Your task to perform on an android device: refresh tabs in the chrome app Image 0: 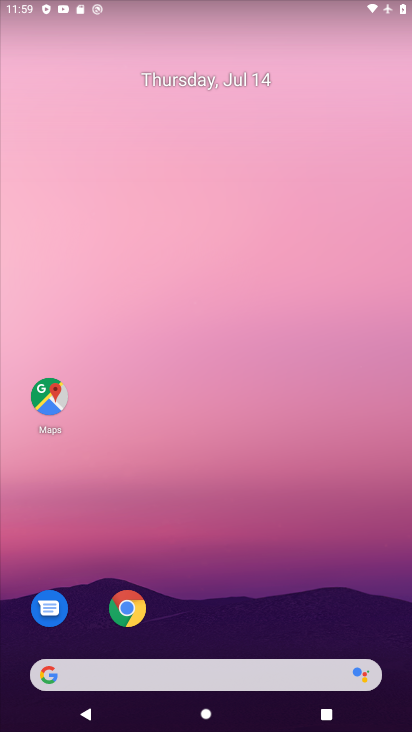
Step 0: drag from (223, 624) to (200, 151)
Your task to perform on an android device: refresh tabs in the chrome app Image 1: 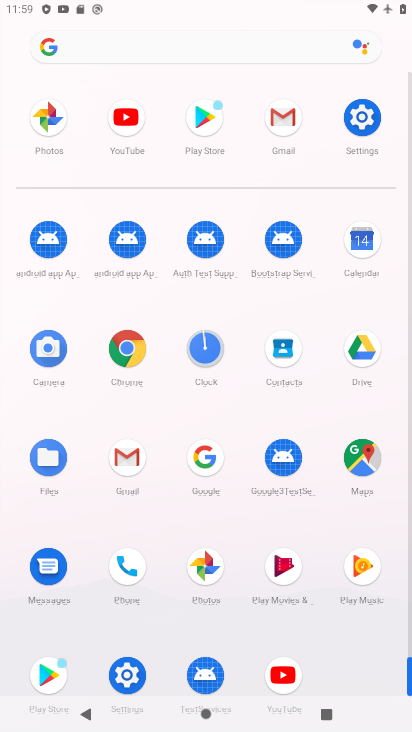
Step 1: click (131, 350)
Your task to perform on an android device: refresh tabs in the chrome app Image 2: 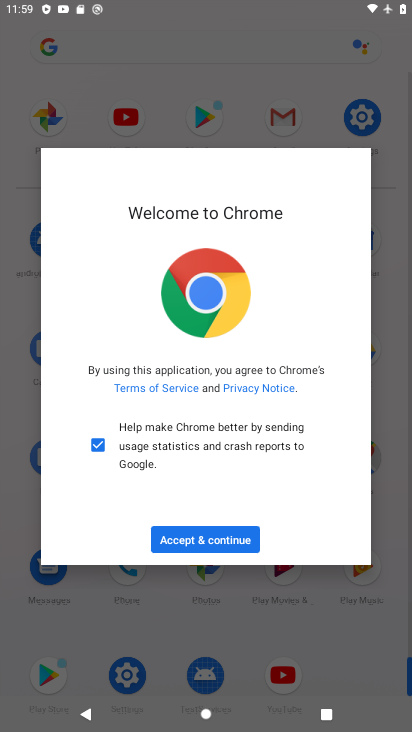
Step 2: click (198, 540)
Your task to perform on an android device: refresh tabs in the chrome app Image 3: 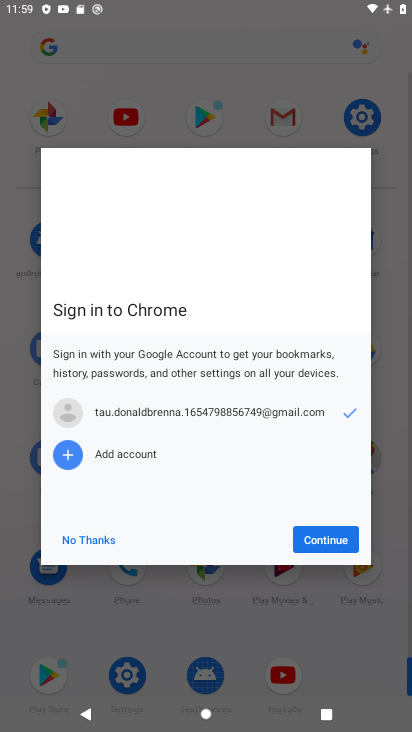
Step 3: click (316, 545)
Your task to perform on an android device: refresh tabs in the chrome app Image 4: 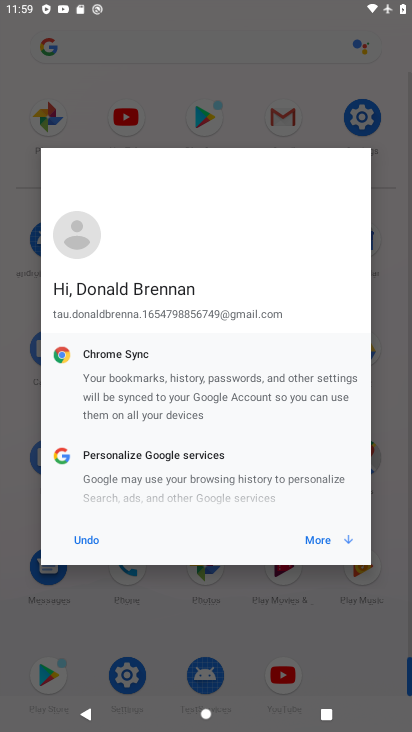
Step 4: click (316, 542)
Your task to perform on an android device: refresh tabs in the chrome app Image 5: 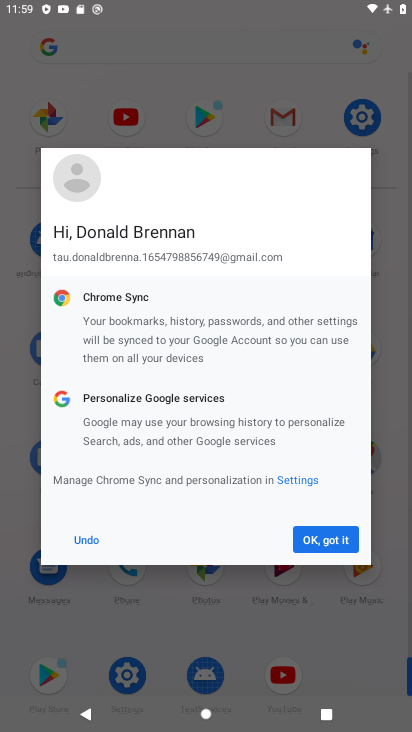
Step 5: click (318, 541)
Your task to perform on an android device: refresh tabs in the chrome app Image 6: 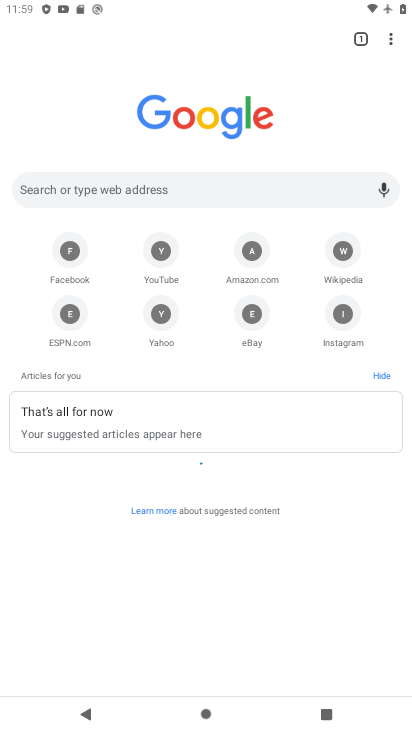
Step 6: click (390, 41)
Your task to perform on an android device: refresh tabs in the chrome app Image 7: 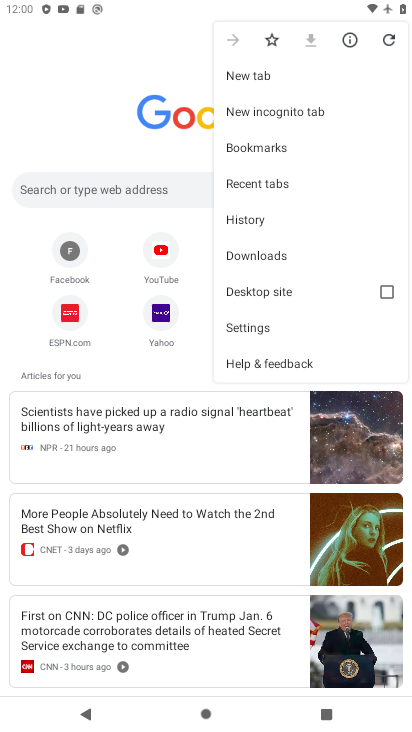
Step 7: click (392, 41)
Your task to perform on an android device: refresh tabs in the chrome app Image 8: 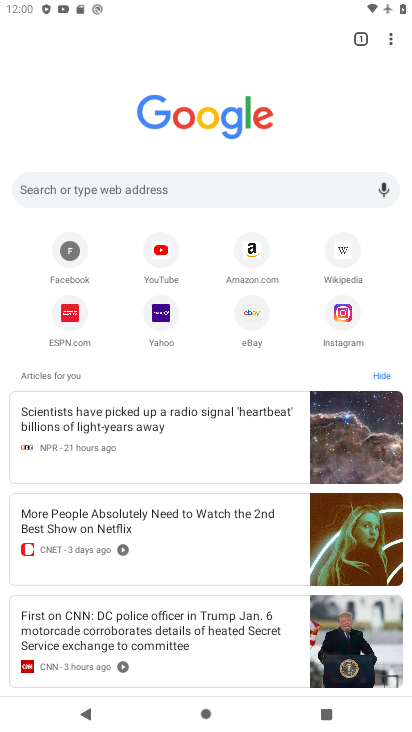
Step 8: task complete